Your task to perform on an android device: Search for seafood restaurants on Google Maps Image 0: 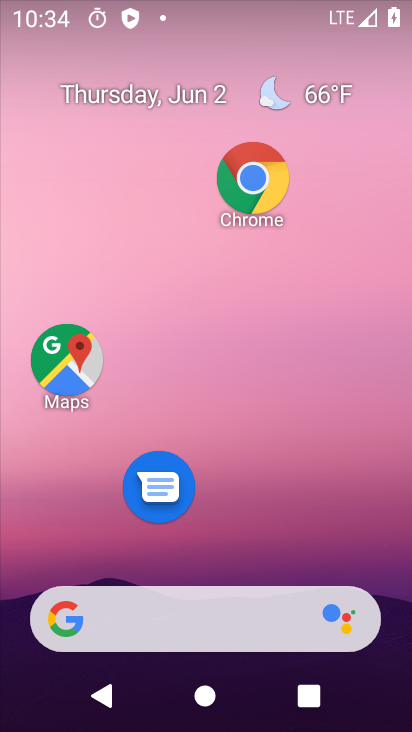
Step 0: drag from (233, 729) to (242, 100)
Your task to perform on an android device: Search for seafood restaurants on Google Maps Image 1: 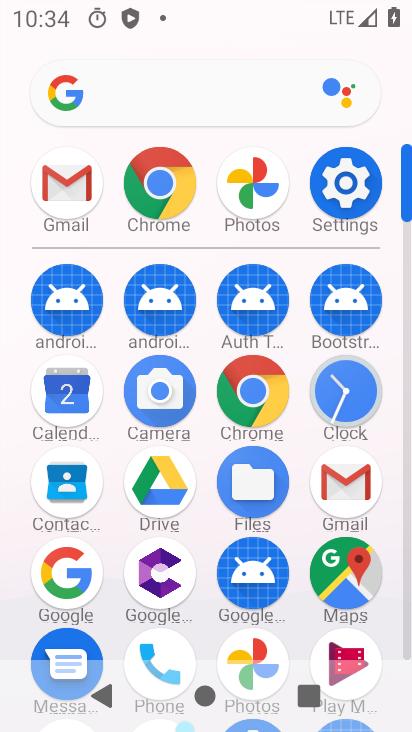
Step 1: click (341, 580)
Your task to perform on an android device: Search for seafood restaurants on Google Maps Image 2: 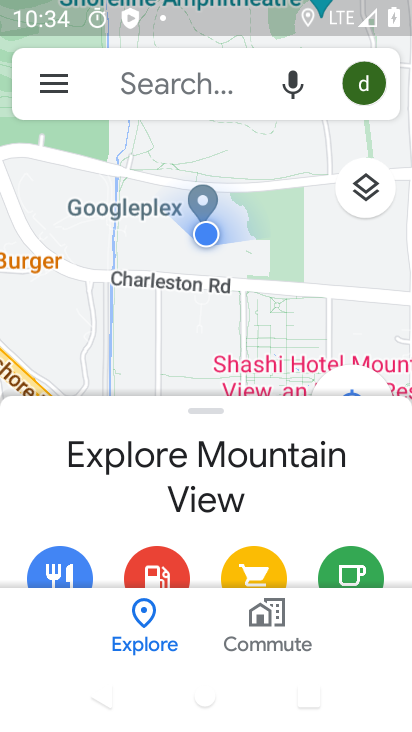
Step 2: click (160, 91)
Your task to perform on an android device: Search for seafood restaurants on Google Maps Image 3: 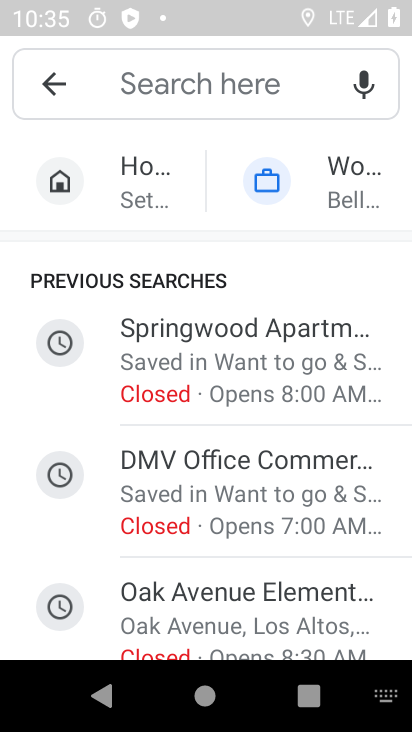
Step 3: type "seafood restaurants"
Your task to perform on an android device: Search for seafood restaurants on Google Maps Image 4: 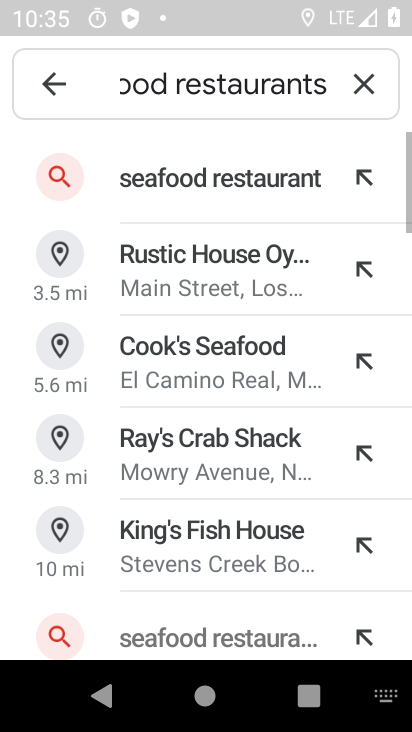
Step 4: click (203, 176)
Your task to perform on an android device: Search for seafood restaurants on Google Maps Image 5: 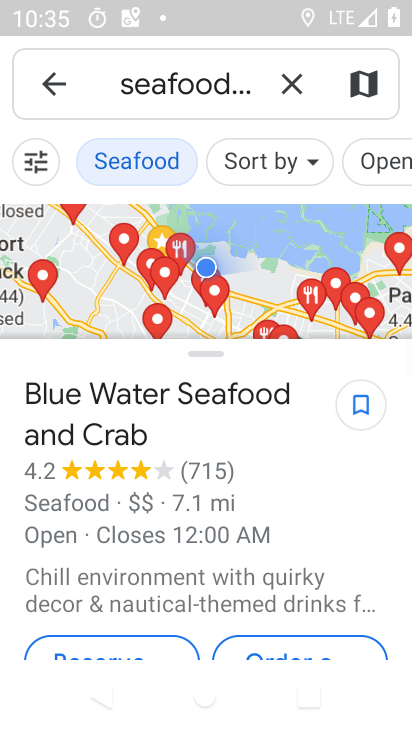
Step 5: task complete